Your task to perform on an android device: toggle pop-ups in chrome Image 0: 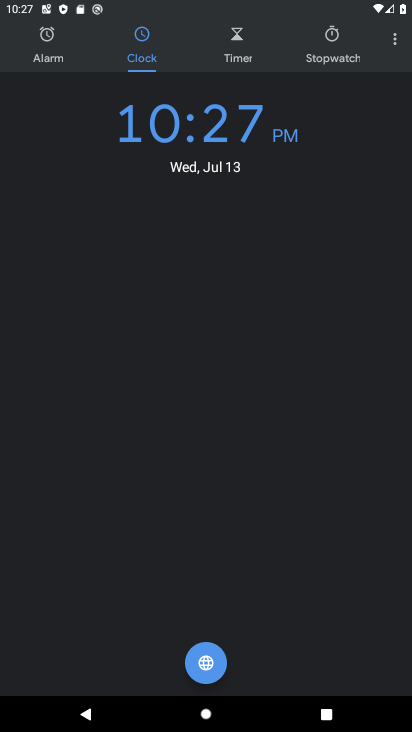
Step 0: press home button
Your task to perform on an android device: toggle pop-ups in chrome Image 1: 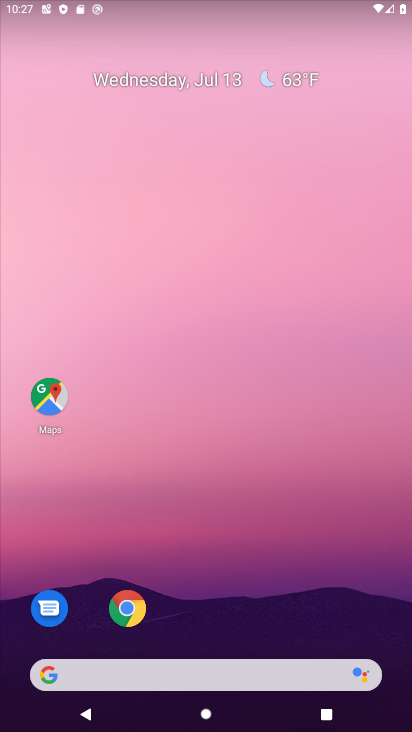
Step 1: drag from (206, 622) to (347, 98)
Your task to perform on an android device: toggle pop-ups in chrome Image 2: 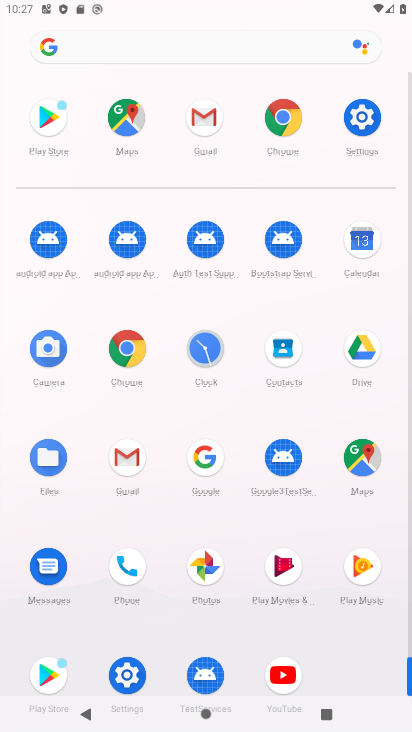
Step 2: click (119, 346)
Your task to perform on an android device: toggle pop-ups in chrome Image 3: 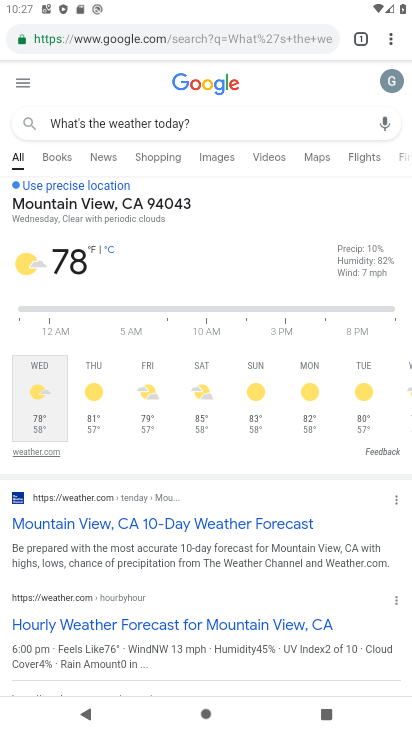
Step 3: drag from (392, 38) to (263, 434)
Your task to perform on an android device: toggle pop-ups in chrome Image 4: 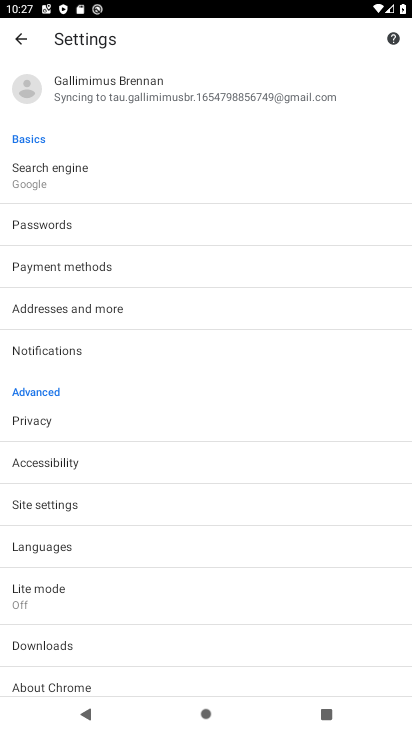
Step 4: drag from (130, 612) to (162, 393)
Your task to perform on an android device: toggle pop-ups in chrome Image 5: 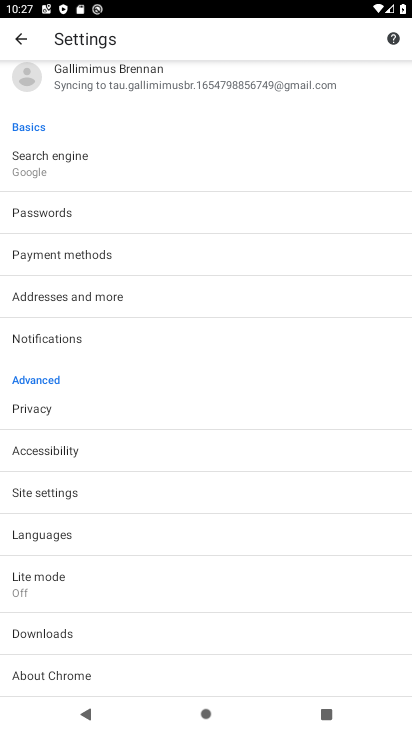
Step 5: click (57, 492)
Your task to perform on an android device: toggle pop-ups in chrome Image 6: 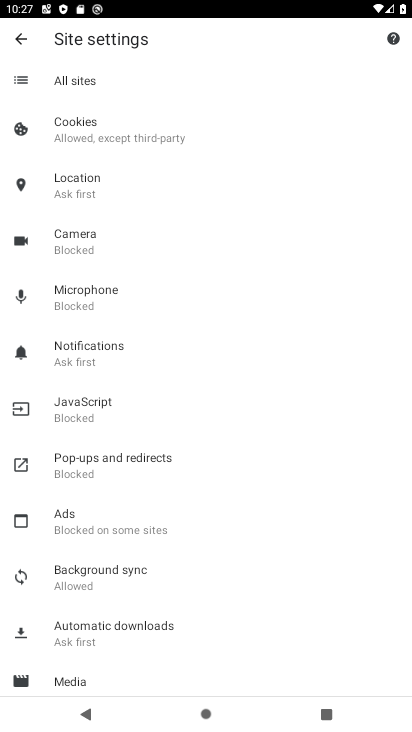
Step 6: click (127, 456)
Your task to perform on an android device: toggle pop-ups in chrome Image 7: 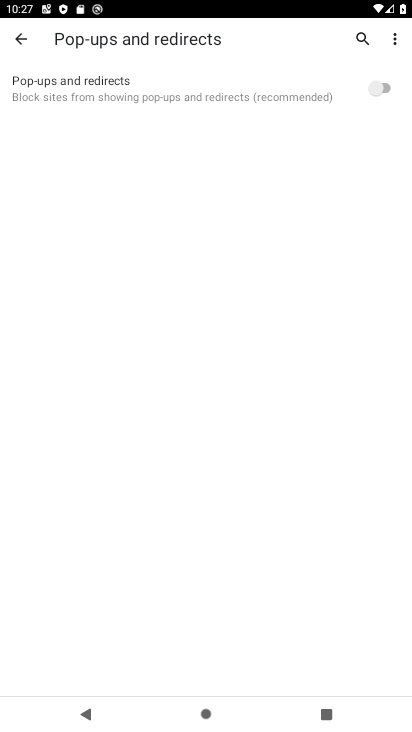
Step 7: click (342, 91)
Your task to perform on an android device: toggle pop-ups in chrome Image 8: 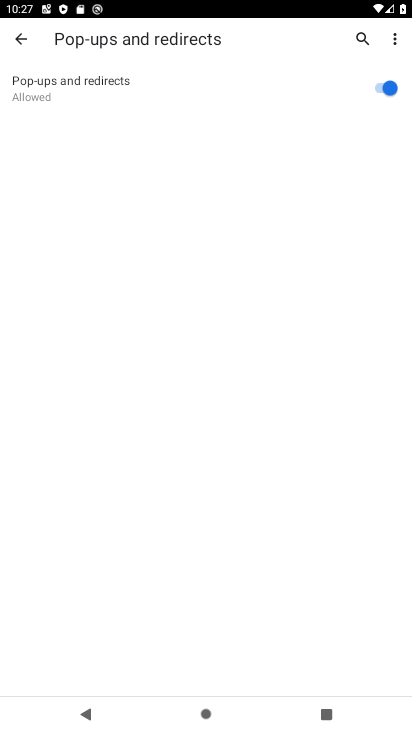
Step 8: task complete